Your task to perform on an android device: add a label to a message in the gmail app Image 0: 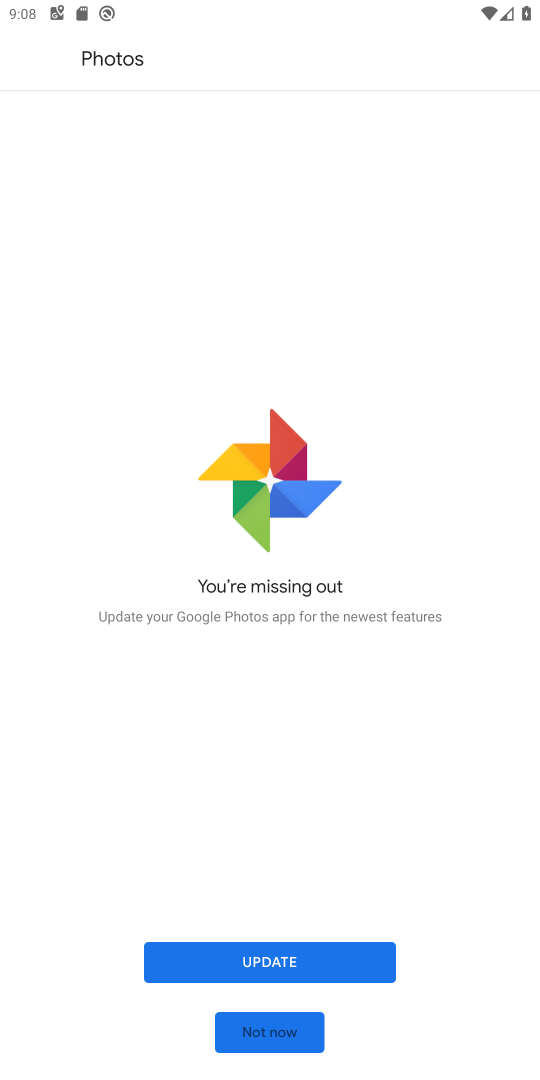
Step 0: press home button
Your task to perform on an android device: add a label to a message in the gmail app Image 1: 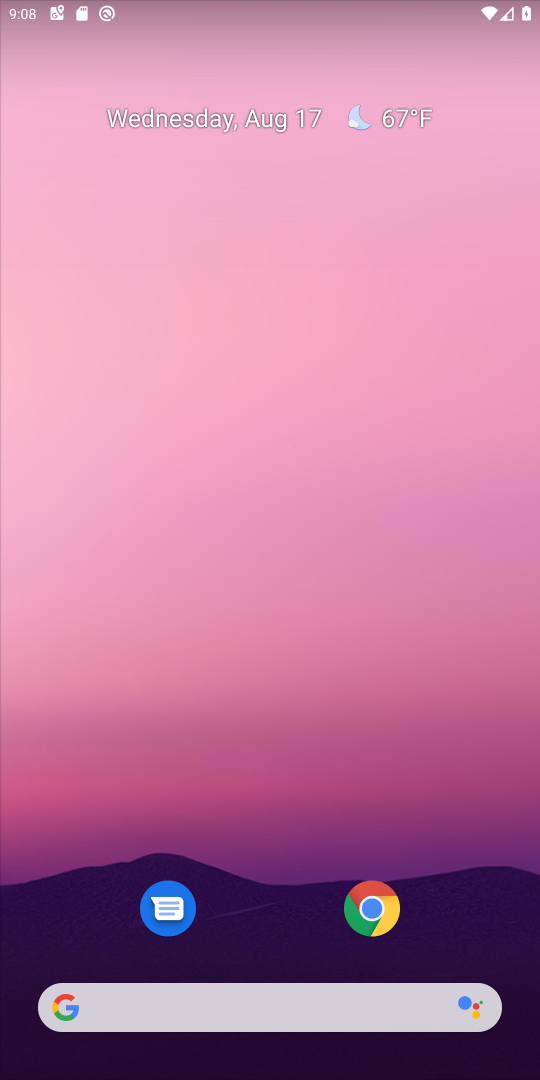
Step 1: drag from (300, 920) to (388, 42)
Your task to perform on an android device: add a label to a message in the gmail app Image 2: 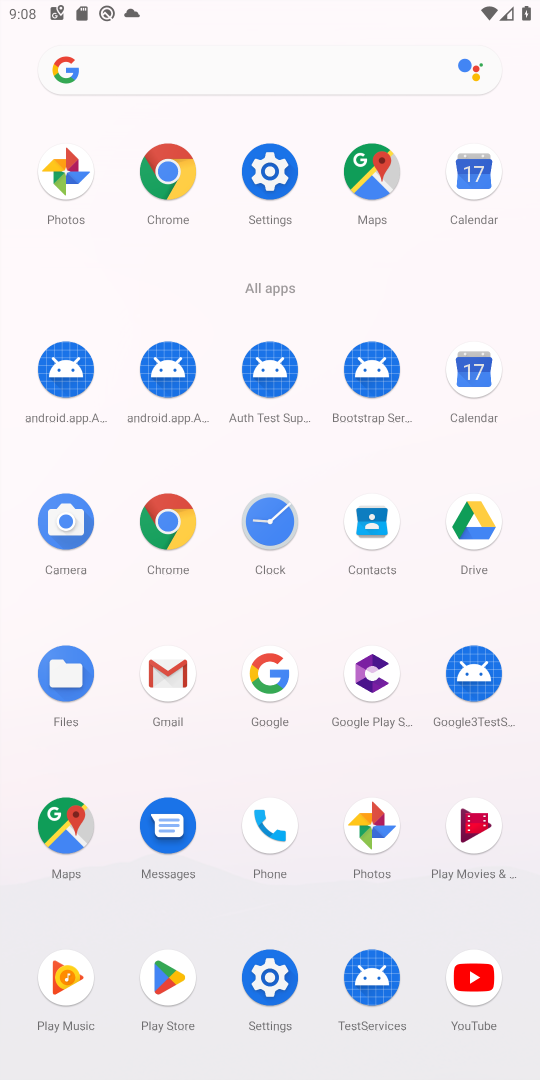
Step 2: click (174, 672)
Your task to perform on an android device: add a label to a message in the gmail app Image 3: 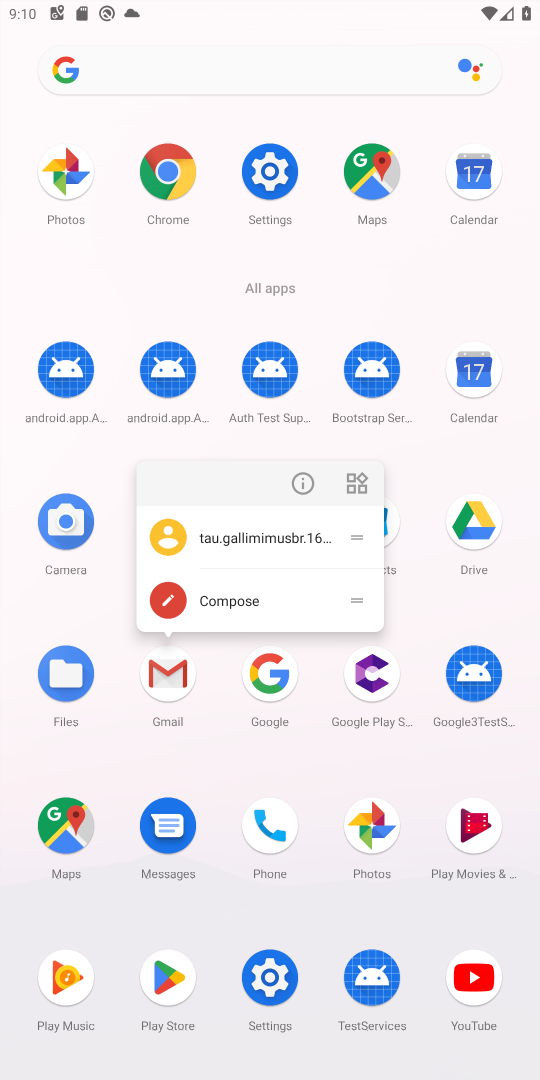
Step 3: click (179, 672)
Your task to perform on an android device: add a label to a message in the gmail app Image 4: 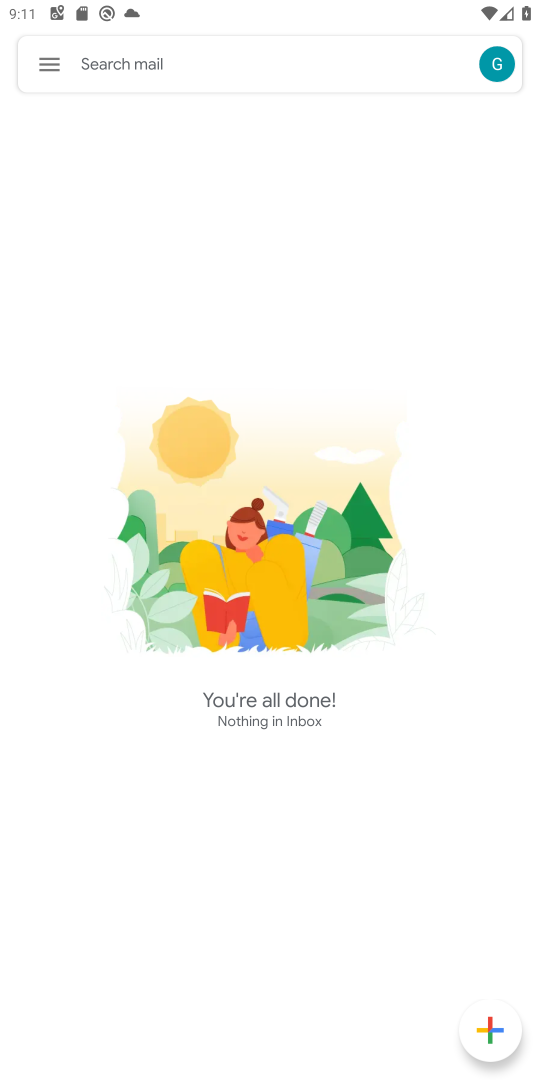
Step 4: task complete